Your task to perform on an android device: Open network settings Image 0: 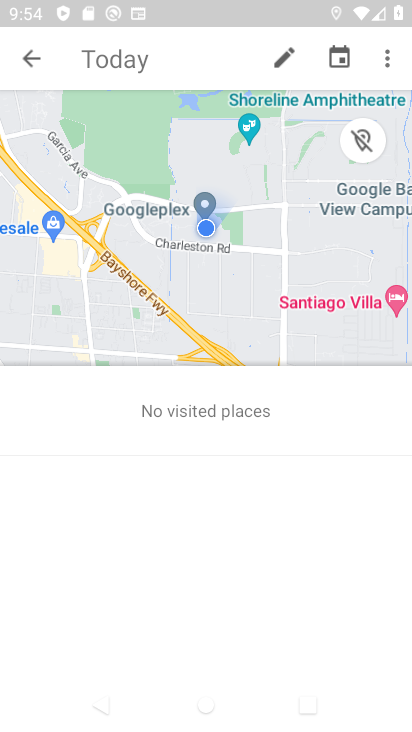
Step 0: press back button
Your task to perform on an android device: Open network settings Image 1: 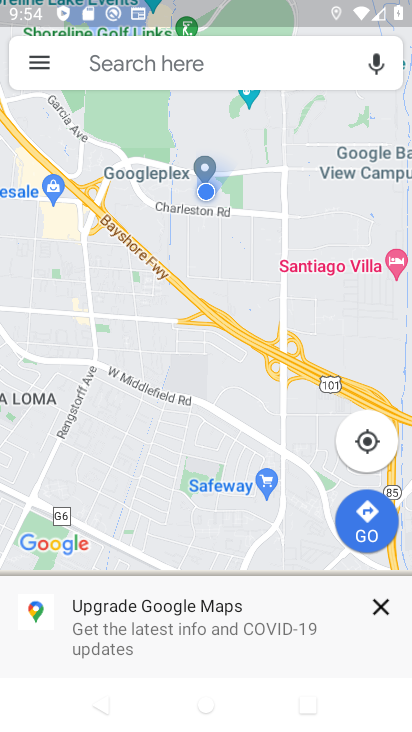
Step 1: press home button
Your task to perform on an android device: Open network settings Image 2: 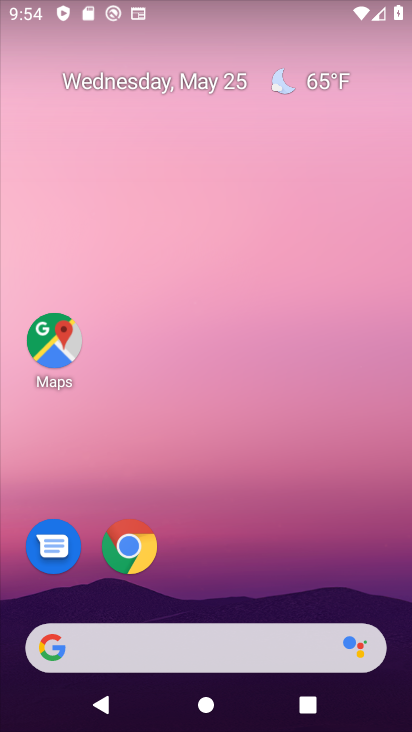
Step 2: drag from (236, 501) to (232, 54)
Your task to perform on an android device: Open network settings Image 3: 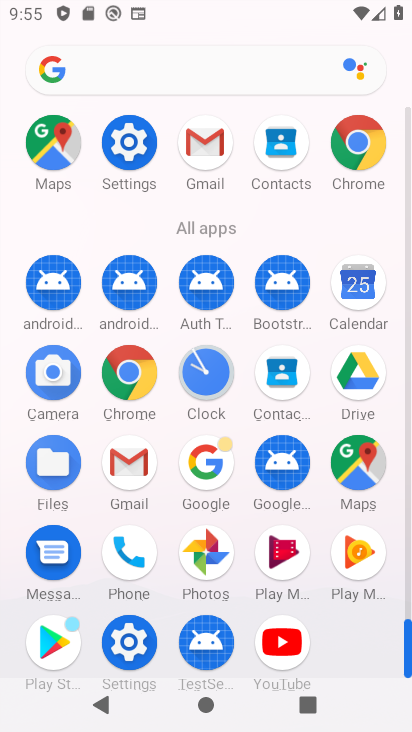
Step 3: drag from (15, 569) to (19, 240)
Your task to perform on an android device: Open network settings Image 4: 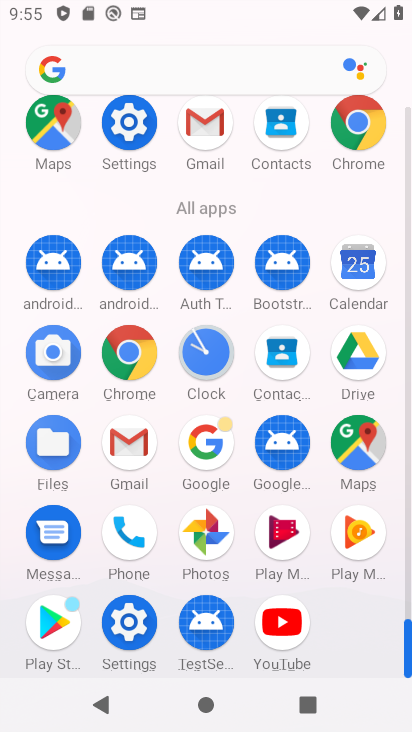
Step 4: click (131, 621)
Your task to perform on an android device: Open network settings Image 5: 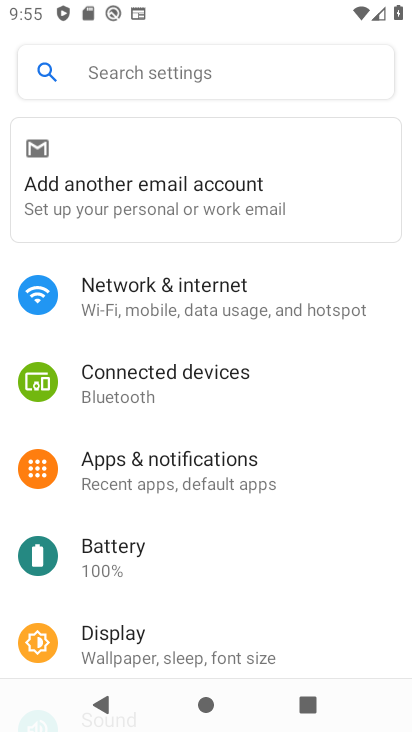
Step 5: click (201, 302)
Your task to perform on an android device: Open network settings Image 6: 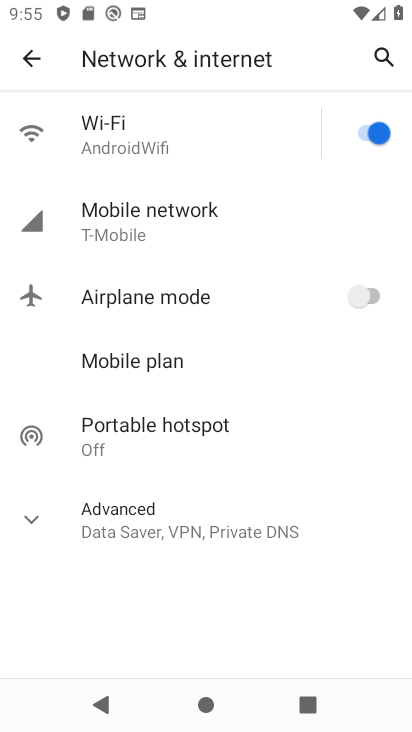
Step 6: click (27, 525)
Your task to perform on an android device: Open network settings Image 7: 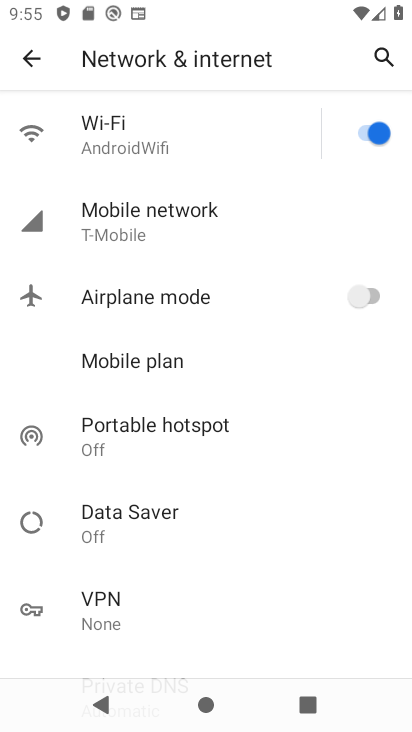
Step 7: click (123, 217)
Your task to perform on an android device: Open network settings Image 8: 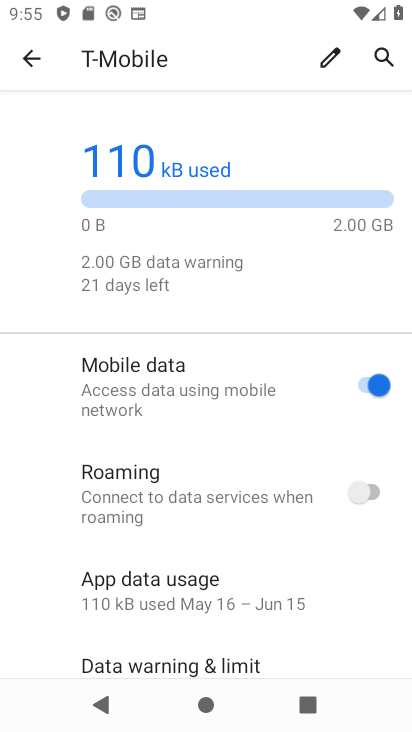
Step 8: task complete